Your task to perform on an android device: set an alarm Image 0: 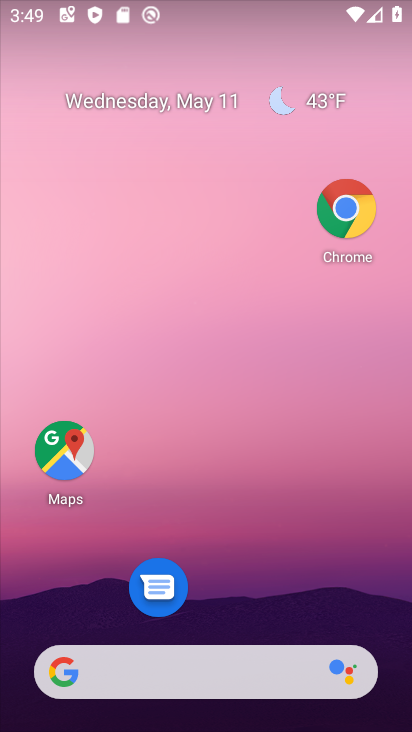
Step 0: drag from (326, 598) to (295, 255)
Your task to perform on an android device: set an alarm Image 1: 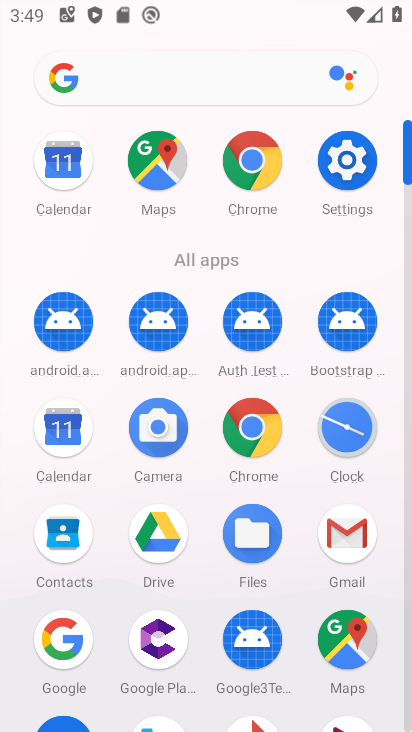
Step 1: click (343, 432)
Your task to perform on an android device: set an alarm Image 2: 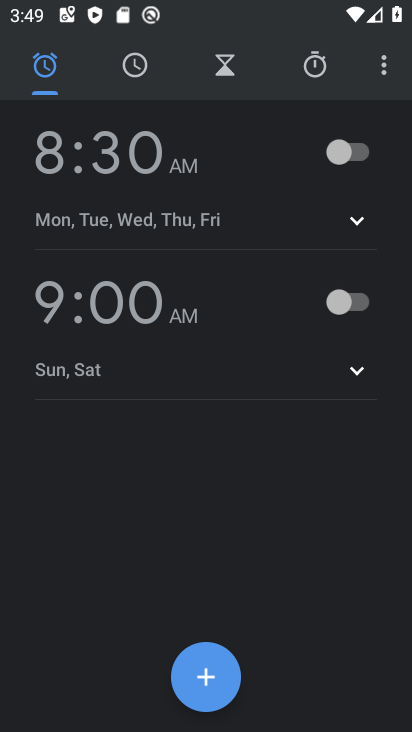
Step 2: click (193, 674)
Your task to perform on an android device: set an alarm Image 3: 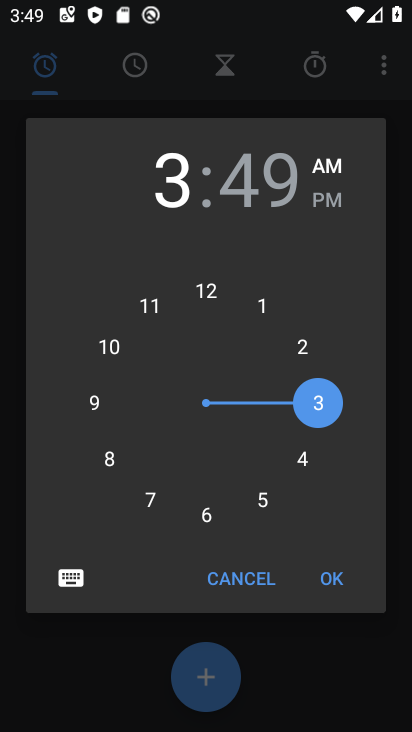
Step 3: click (215, 525)
Your task to perform on an android device: set an alarm Image 4: 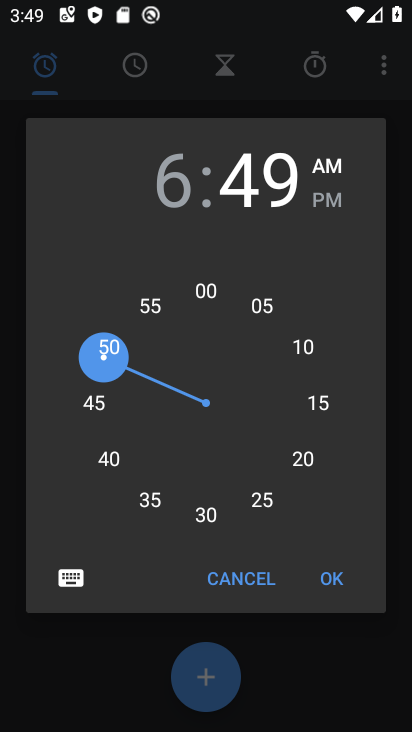
Step 4: click (229, 291)
Your task to perform on an android device: set an alarm Image 5: 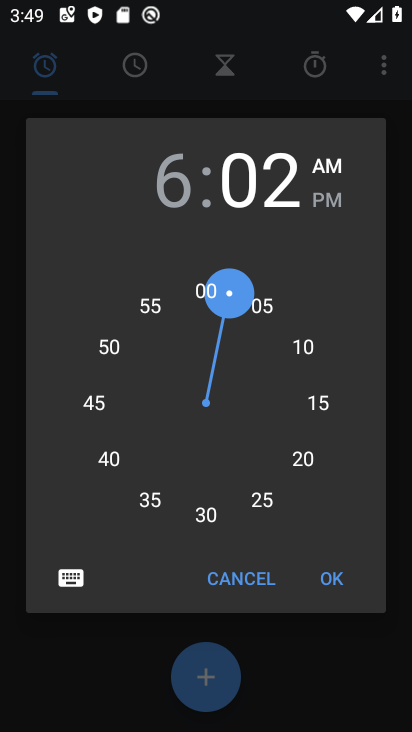
Step 5: click (199, 290)
Your task to perform on an android device: set an alarm Image 6: 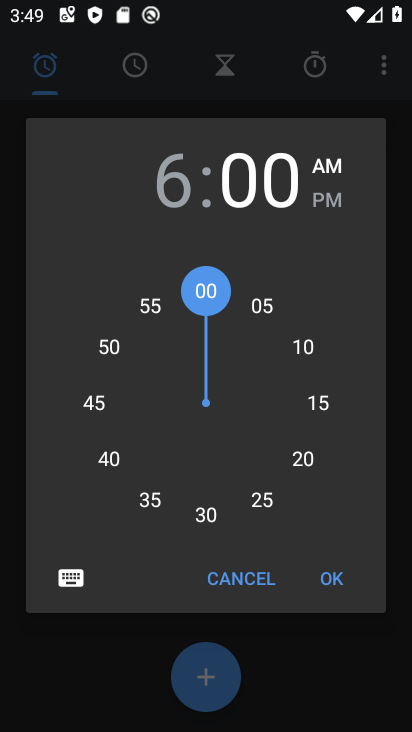
Step 6: click (314, 197)
Your task to perform on an android device: set an alarm Image 7: 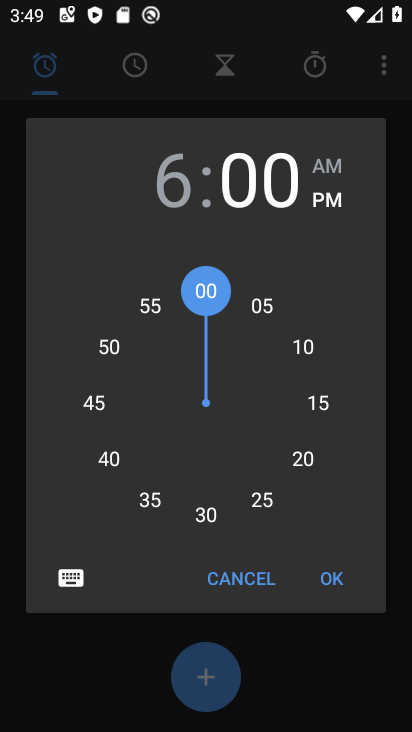
Step 7: click (323, 585)
Your task to perform on an android device: set an alarm Image 8: 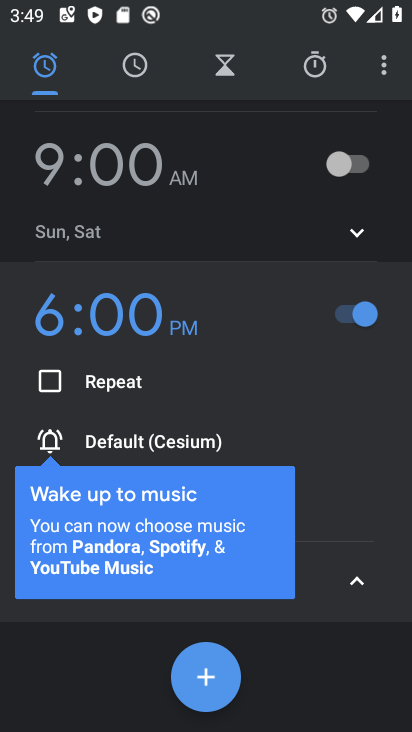
Step 8: click (353, 583)
Your task to perform on an android device: set an alarm Image 9: 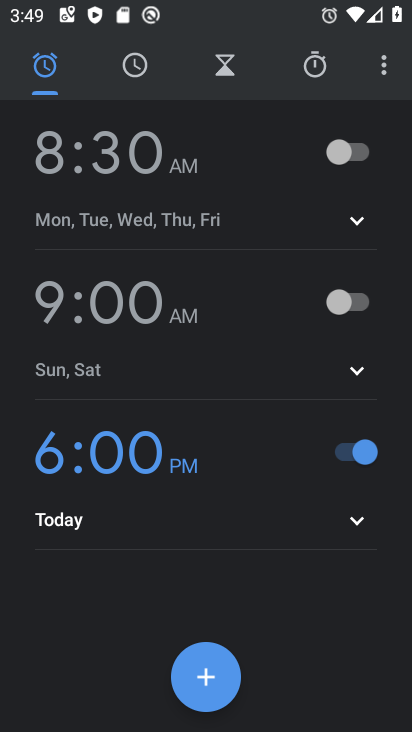
Step 9: task complete